Your task to perform on an android device: Look up the best rated video games on bestbuy.com Image 0: 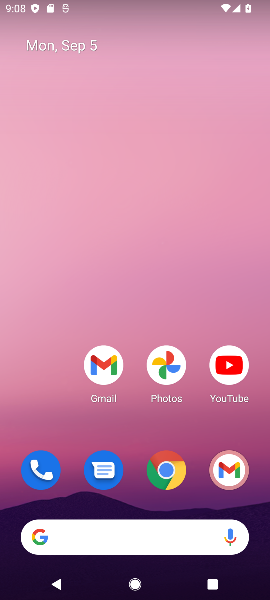
Step 0: click (126, 523)
Your task to perform on an android device: Look up the best rated video games on bestbuy.com Image 1: 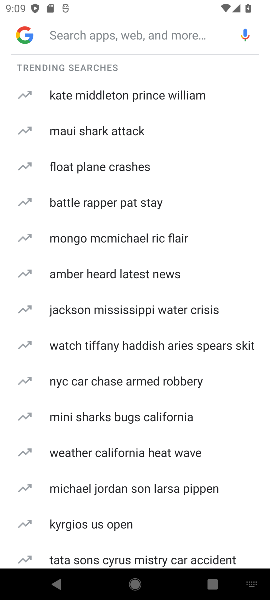
Step 1: type "bestbuy.com"
Your task to perform on an android device: Look up the best rated video games on bestbuy.com Image 2: 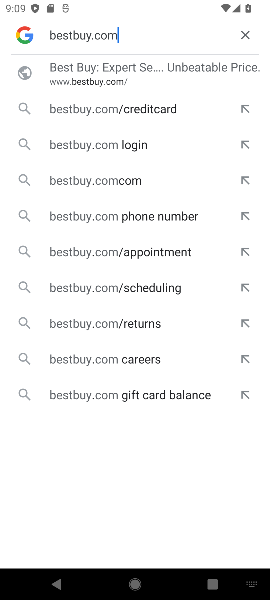
Step 2: click (85, 65)
Your task to perform on an android device: Look up the best rated video games on bestbuy.com Image 3: 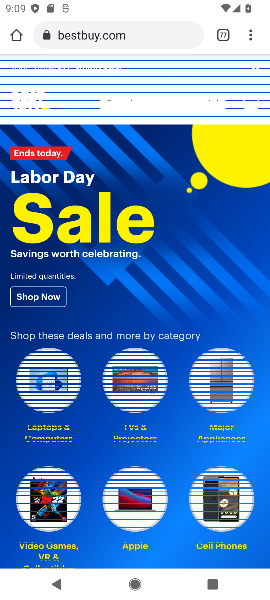
Step 3: click (132, 102)
Your task to perform on an android device: Look up the best rated video games on bestbuy.com Image 4: 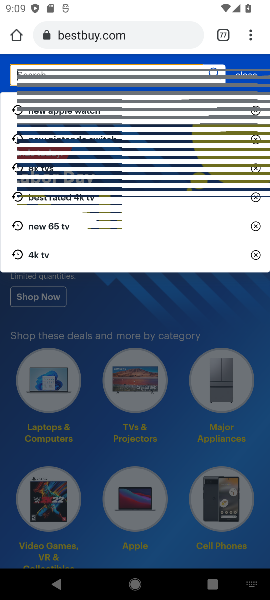
Step 4: type "best rated video games"
Your task to perform on an android device: Look up the best rated video games on bestbuy.com Image 5: 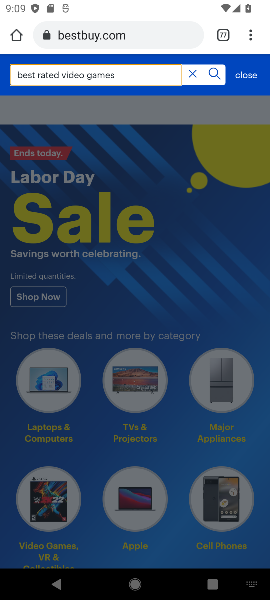
Step 5: click (214, 72)
Your task to perform on an android device: Look up the best rated video games on bestbuy.com Image 6: 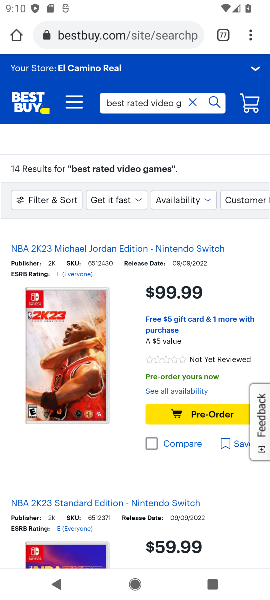
Step 6: task complete